Your task to perform on an android device: Open internet settings Image 0: 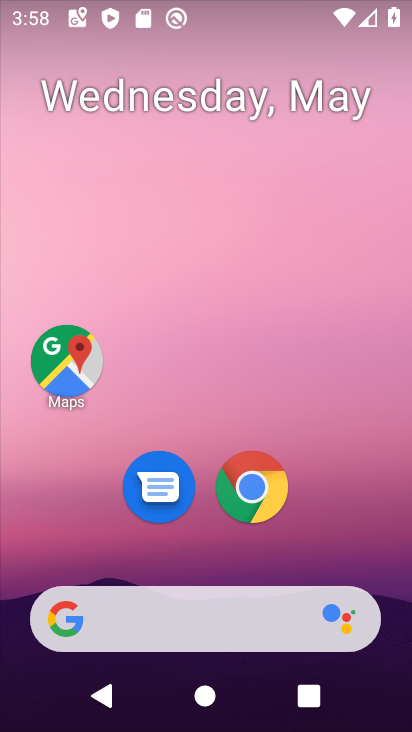
Step 0: drag from (335, 522) to (272, 29)
Your task to perform on an android device: Open internet settings Image 1: 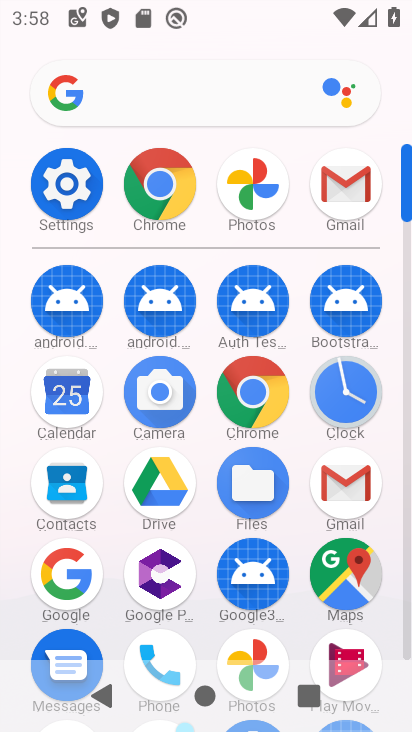
Step 1: drag from (17, 546) to (13, 285)
Your task to perform on an android device: Open internet settings Image 2: 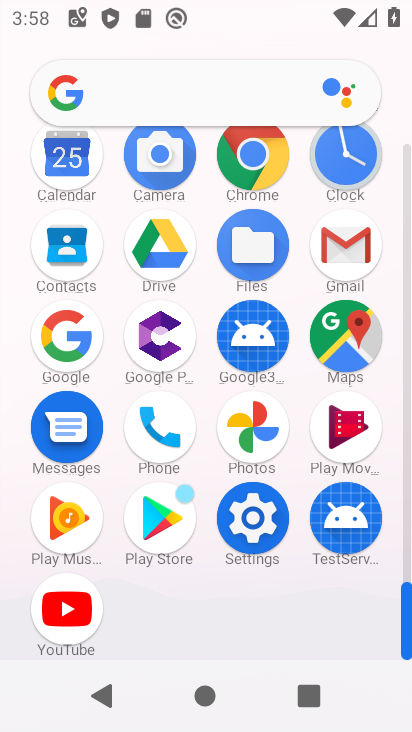
Step 2: click (245, 511)
Your task to perform on an android device: Open internet settings Image 3: 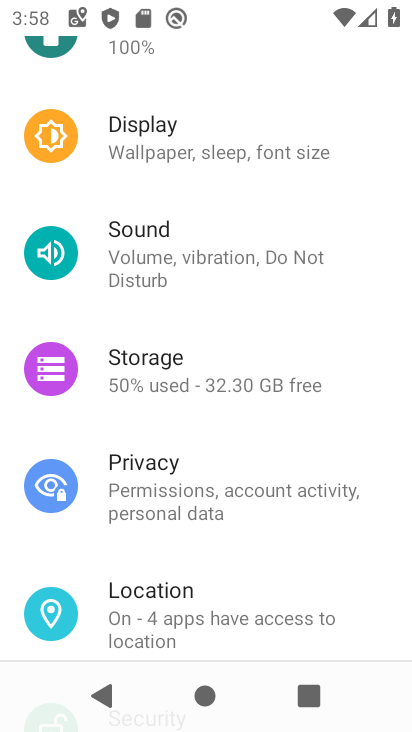
Step 3: drag from (284, 120) to (284, 581)
Your task to perform on an android device: Open internet settings Image 4: 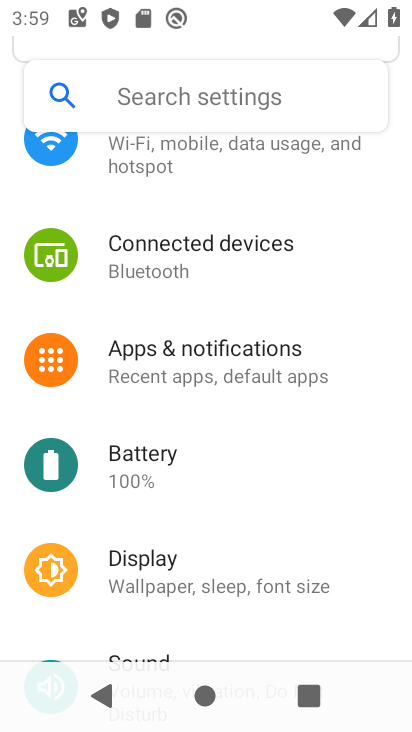
Step 4: drag from (255, 251) to (243, 550)
Your task to perform on an android device: Open internet settings Image 5: 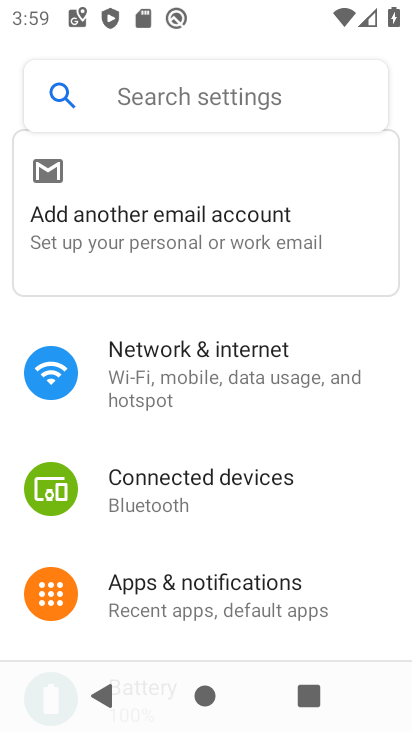
Step 5: click (204, 382)
Your task to perform on an android device: Open internet settings Image 6: 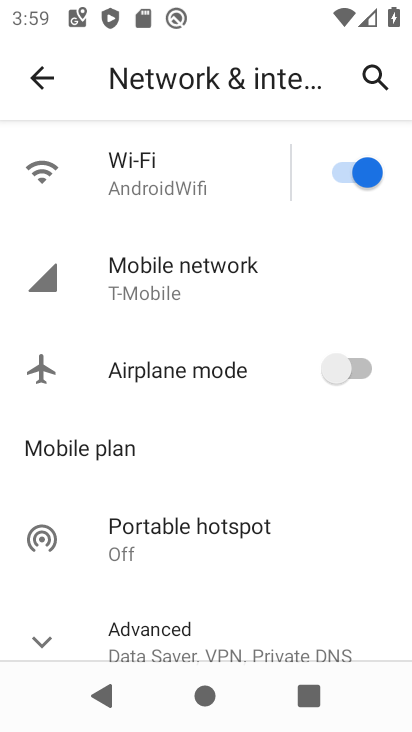
Step 6: task complete